Your task to perform on an android device: star an email in the gmail app Image 0: 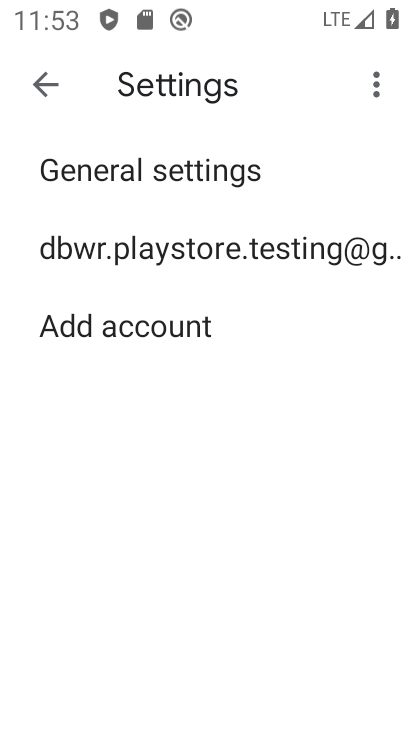
Step 0: press home button
Your task to perform on an android device: star an email in the gmail app Image 1: 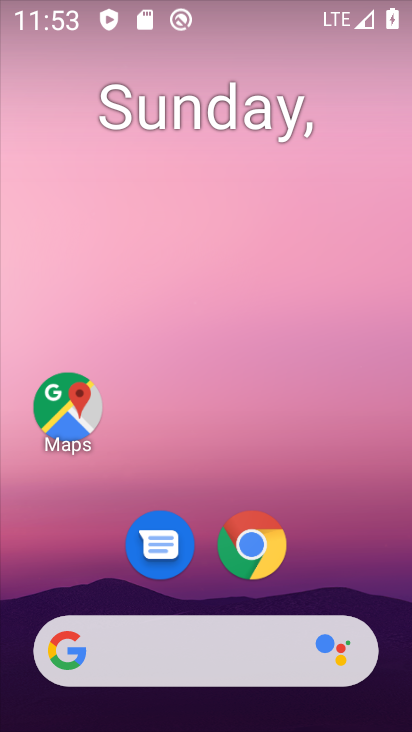
Step 1: drag from (370, 566) to (372, 163)
Your task to perform on an android device: star an email in the gmail app Image 2: 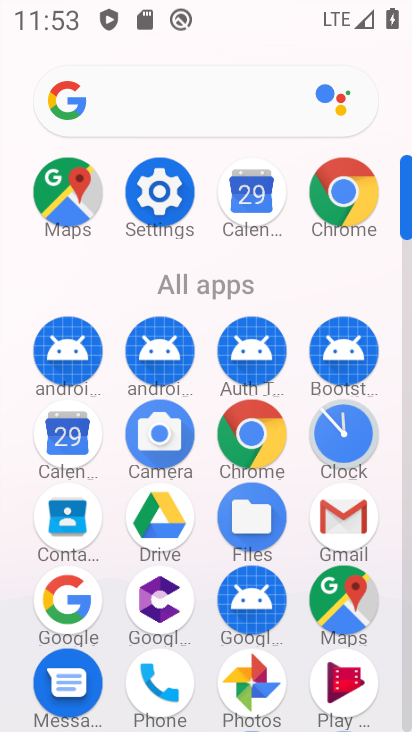
Step 2: click (351, 519)
Your task to perform on an android device: star an email in the gmail app Image 3: 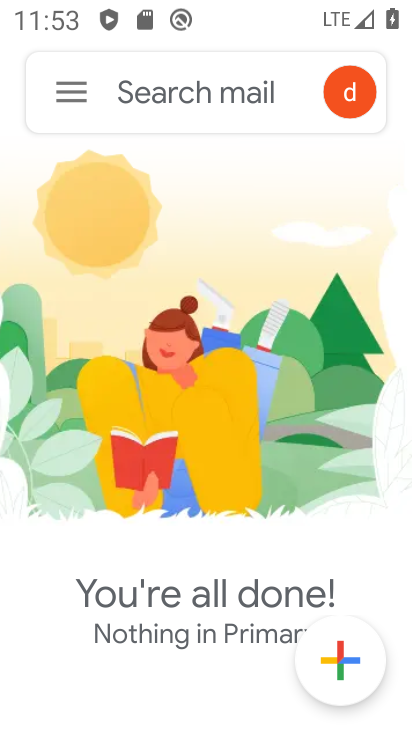
Step 3: task complete